Your task to perform on an android device: See recent photos Image 0: 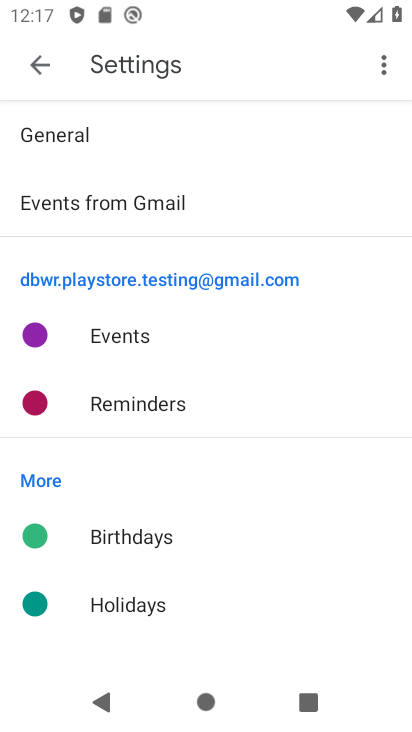
Step 0: press home button
Your task to perform on an android device: See recent photos Image 1: 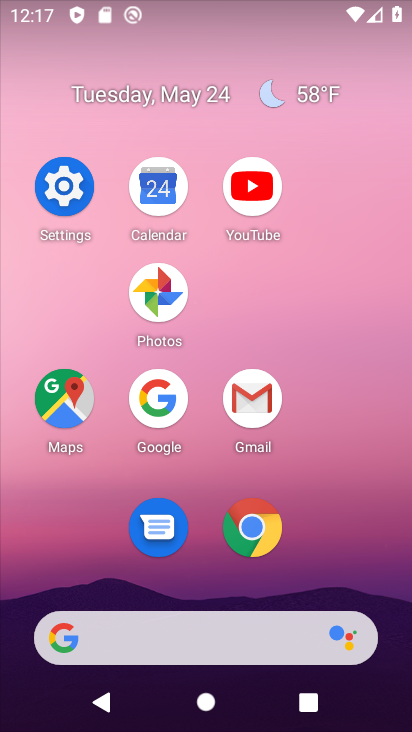
Step 1: click (147, 302)
Your task to perform on an android device: See recent photos Image 2: 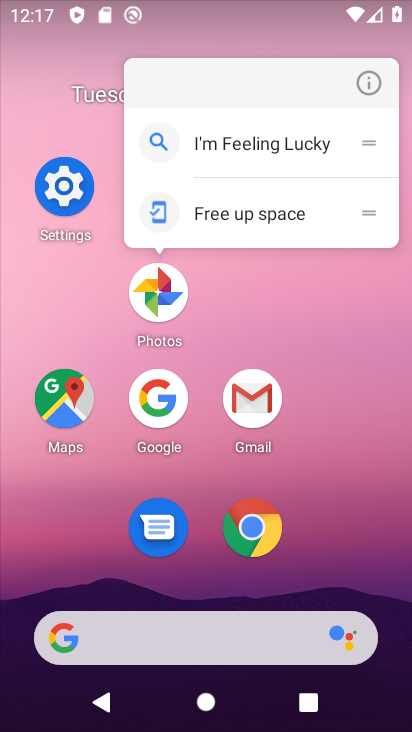
Step 2: click (147, 302)
Your task to perform on an android device: See recent photos Image 3: 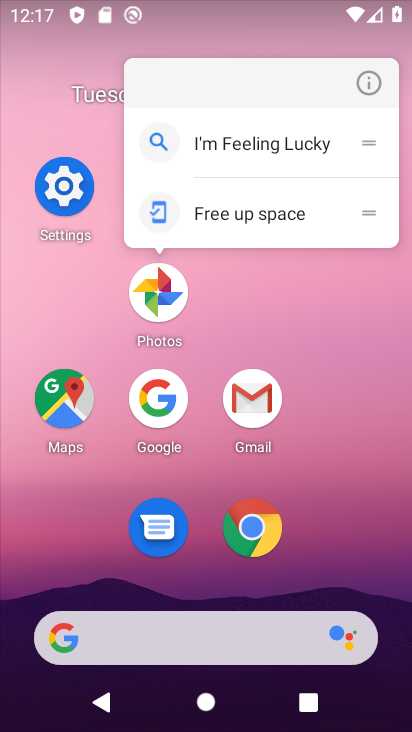
Step 3: click (147, 302)
Your task to perform on an android device: See recent photos Image 4: 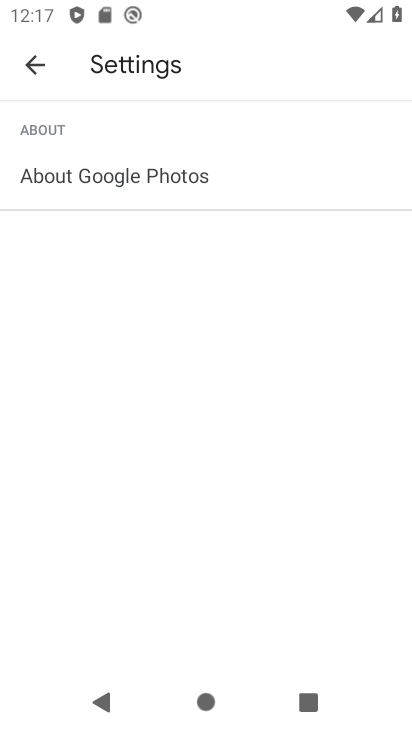
Step 4: click (8, 75)
Your task to perform on an android device: See recent photos Image 5: 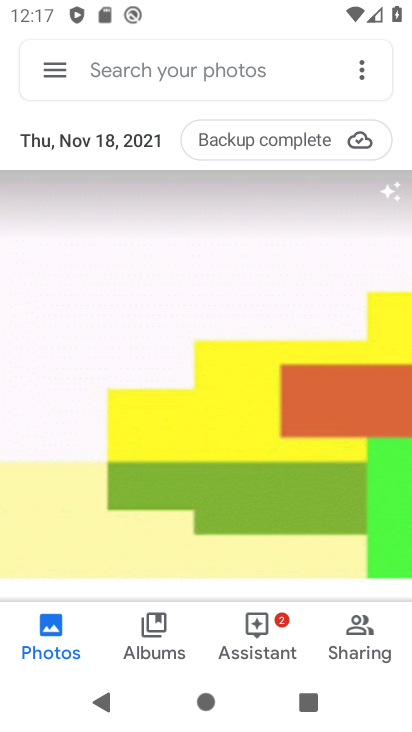
Step 5: task complete